Your task to perform on an android device: Open calendar and show me the second week of next month Image 0: 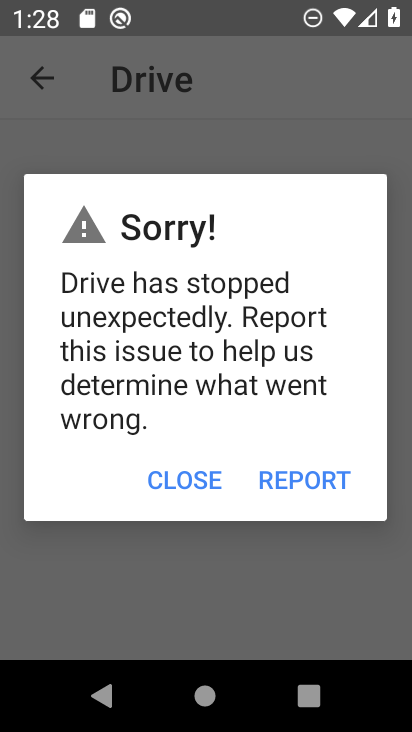
Step 0: press home button
Your task to perform on an android device: Open calendar and show me the second week of next month Image 1: 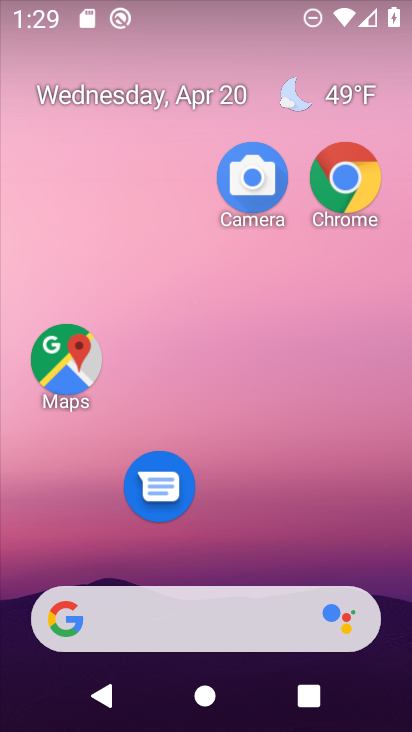
Step 1: drag from (252, 652) to (284, 230)
Your task to perform on an android device: Open calendar and show me the second week of next month Image 2: 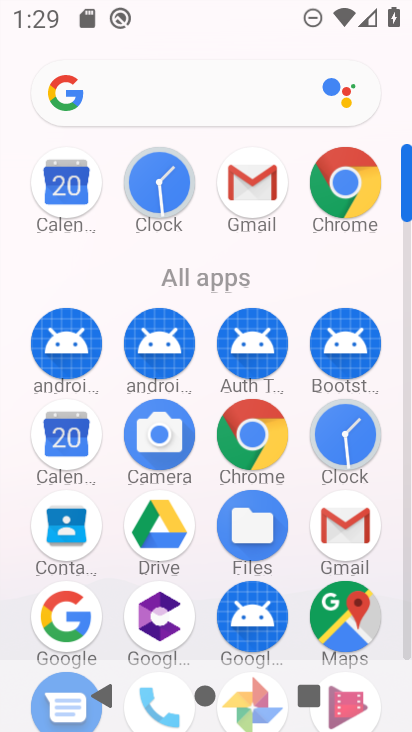
Step 2: click (43, 442)
Your task to perform on an android device: Open calendar and show me the second week of next month Image 3: 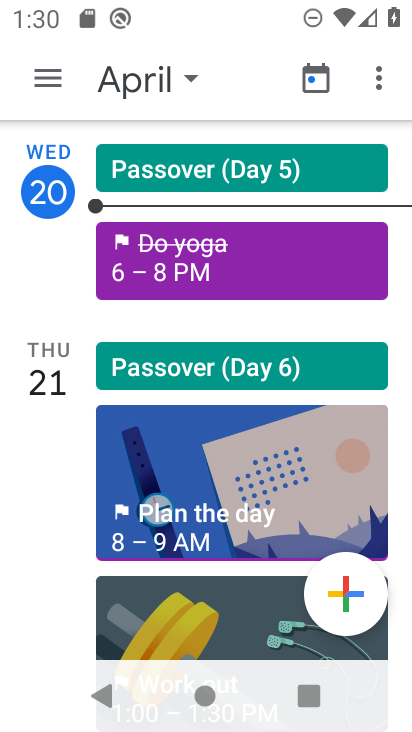
Step 3: click (36, 76)
Your task to perform on an android device: Open calendar and show me the second week of next month Image 4: 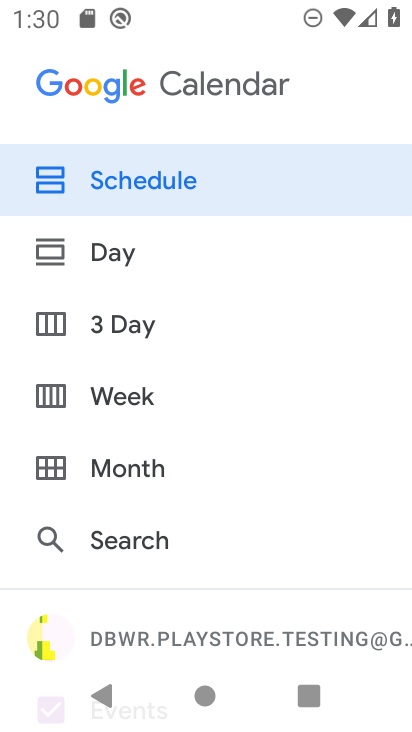
Step 4: click (108, 471)
Your task to perform on an android device: Open calendar and show me the second week of next month Image 5: 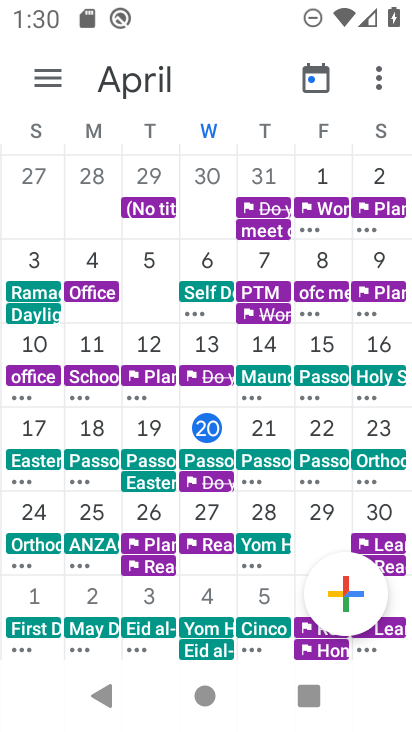
Step 5: drag from (304, 406) to (7, 548)
Your task to perform on an android device: Open calendar and show me the second week of next month Image 6: 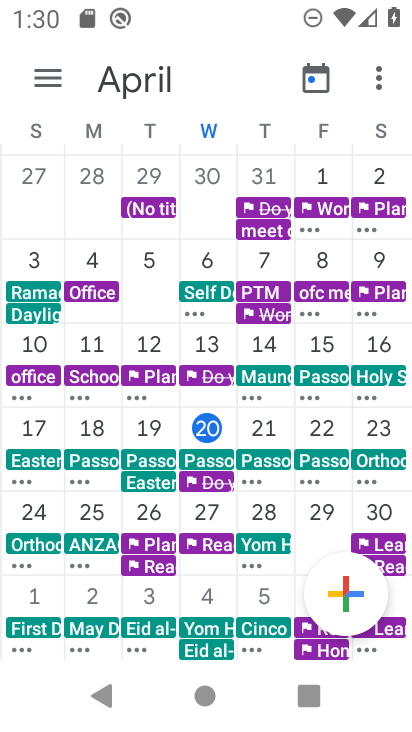
Step 6: drag from (373, 396) to (0, 512)
Your task to perform on an android device: Open calendar and show me the second week of next month Image 7: 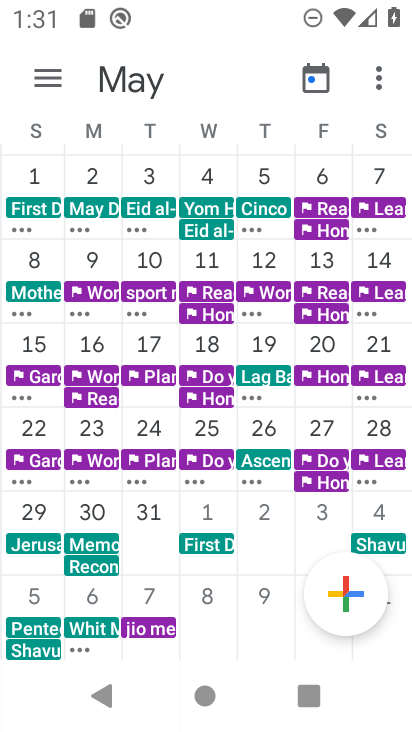
Step 7: click (86, 271)
Your task to perform on an android device: Open calendar and show me the second week of next month Image 8: 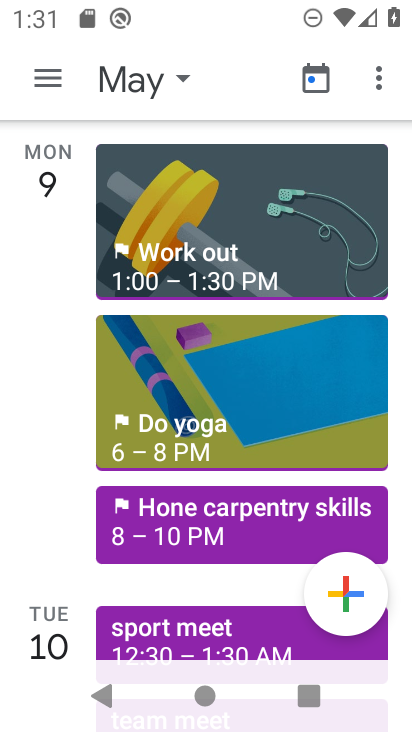
Step 8: task complete